Your task to perform on an android device: turn on showing notifications on the lock screen Image 0: 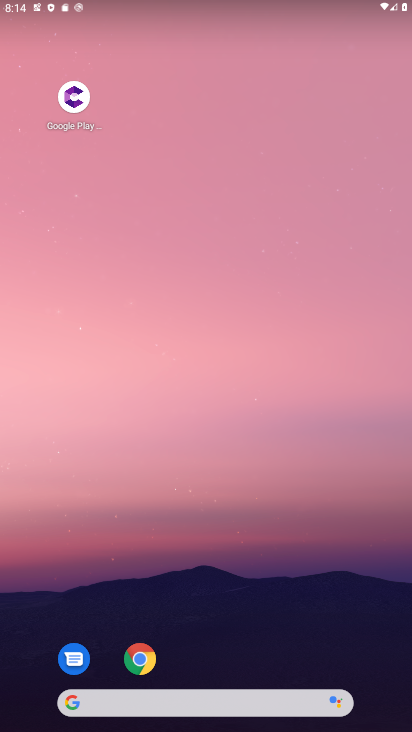
Step 0: drag from (229, 661) to (215, 139)
Your task to perform on an android device: turn on showing notifications on the lock screen Image 1: 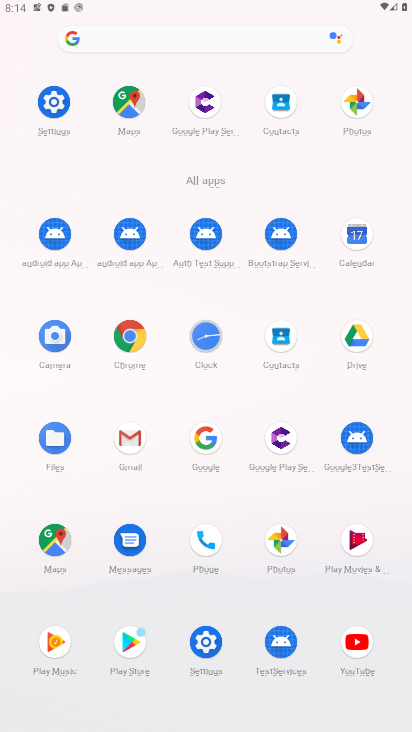
Step 1: click (43, 117)
Your task to perform on an android device: turn on showing notifications on the lock screen Image 2: 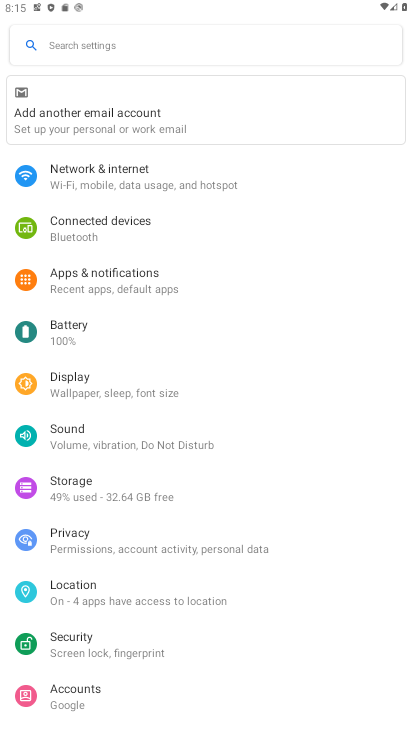
Step 2: click (205, 279)
Your task to perform on an android device: turn on showing notifications on the lock screen Image 3: 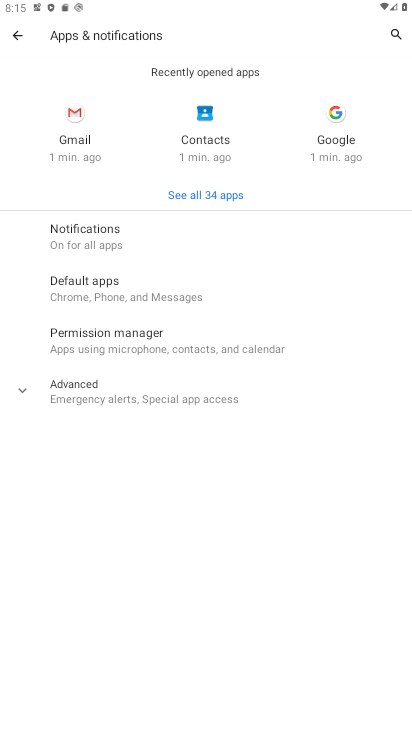
Step 3: click (120, 244)
Your task to perform on an android device: turn on showing notifications on the lock screen Image 4: 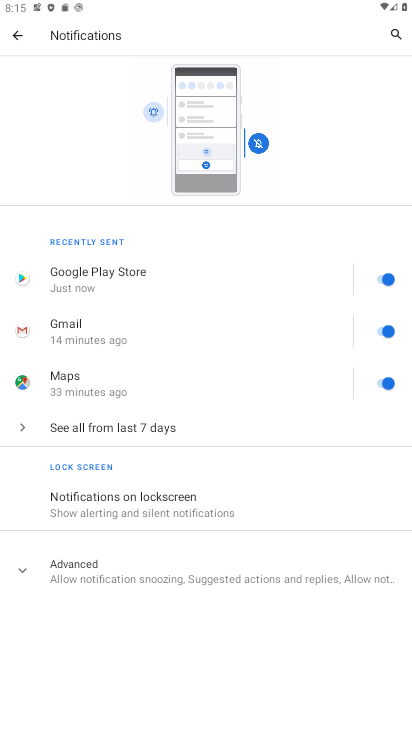
Step 4: click (138, 522)
Your task to perform on an android device: turn on showing notifications on the lock screen Image 5: 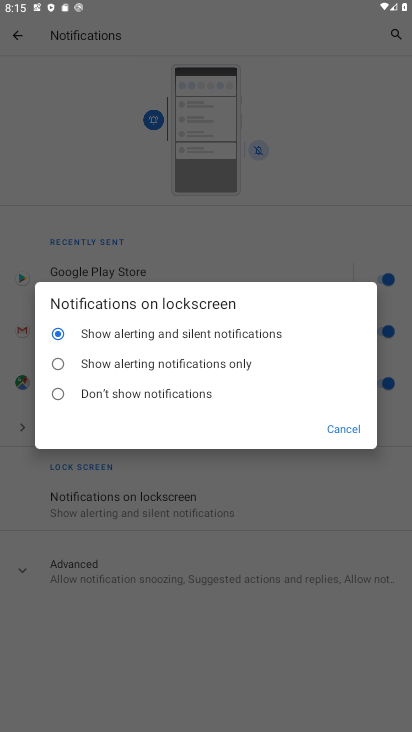
Step 5: task complete